Your task to perform on an android device: Show me popular games on the Play Store Image 0: 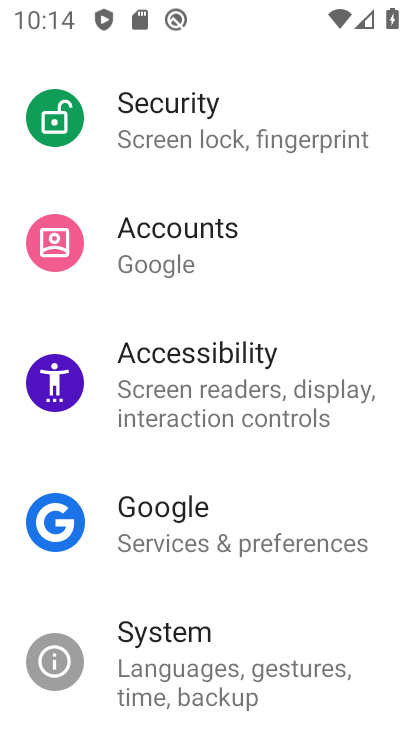
Step 0: press home button
Your task to perform on an android device: Show me popular games on the Play Store Image 1: 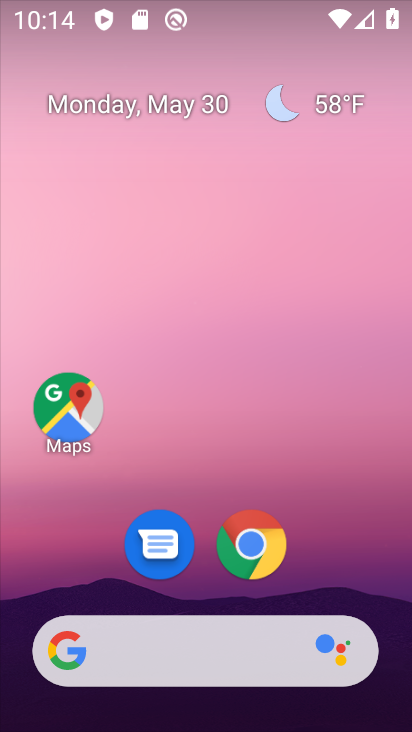
Step 1: drag from (392, 577) to (282, 100)
Your task to perform on an android device: Show me popular games on the Play Store Image 2: 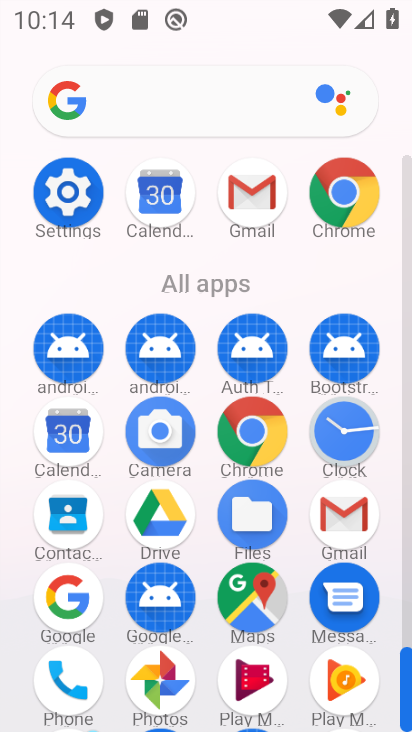
Step 2: click (403, 716)
Your task to perform on an android device: Show me popular games on the Play Store Image 3: 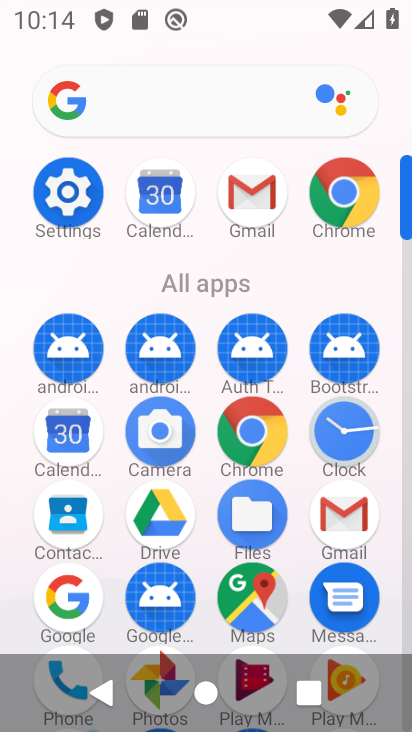
Step 3: click (405, 725)
Your task to perform on an android device: Show me popular games on the Play Store Image 4: 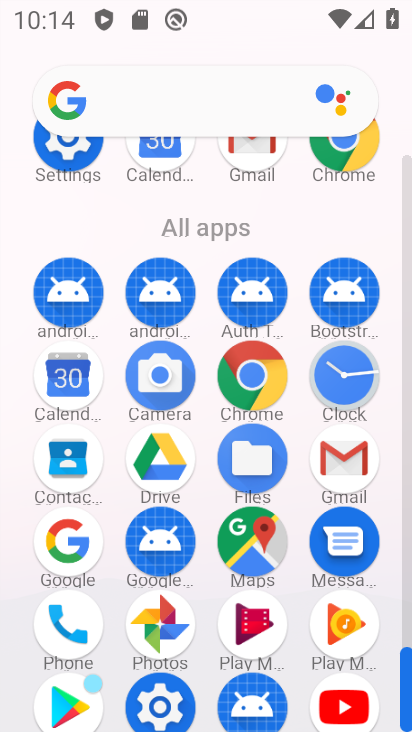
Step 4: click (80, 704)
Your task to perform on an android device: Show me popular games on the Play Store Image 5: 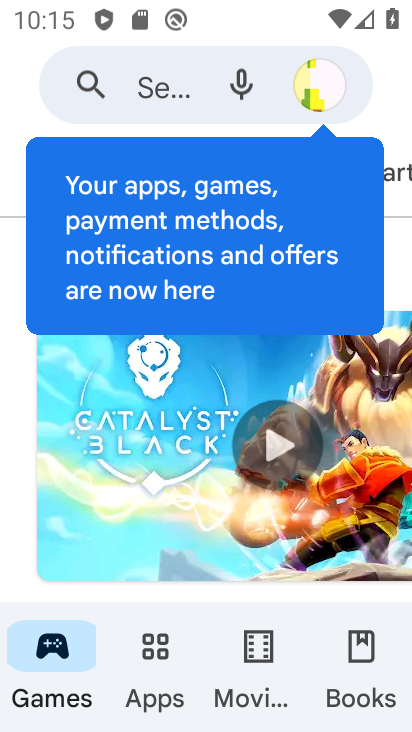
Step 5: click (181, 676)
Your task to perform on an android device: Show me popular games on the Play Store Image 6: 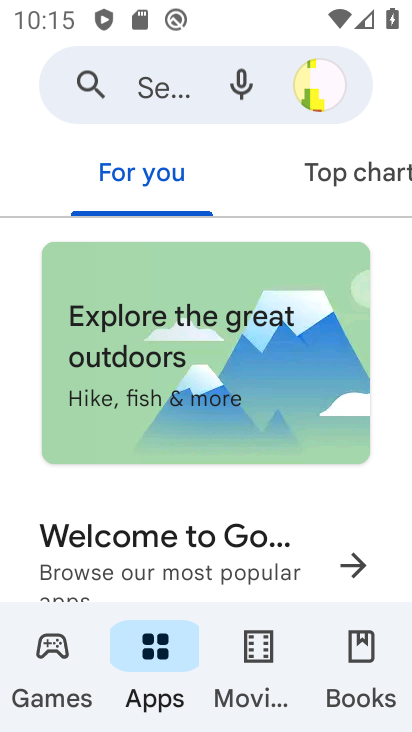
Step 6: click (39, 677)
Your task to perform on an android device: Show me popular games on the Play Store Image 7: 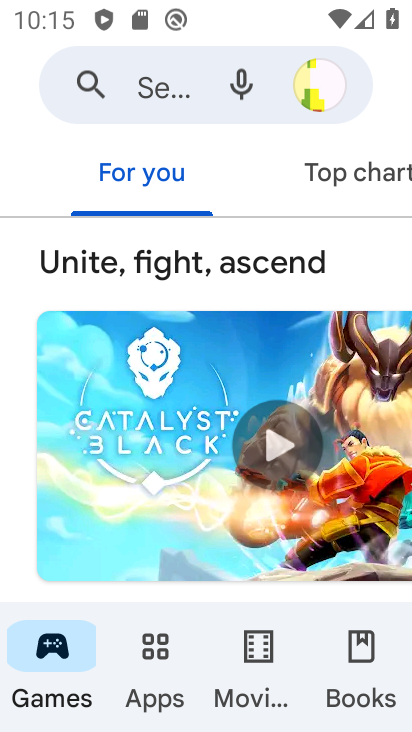
Step 7: task complete